Your task to perform on an android device: open app "Google Play Music" (install if not already installed) Image 0: 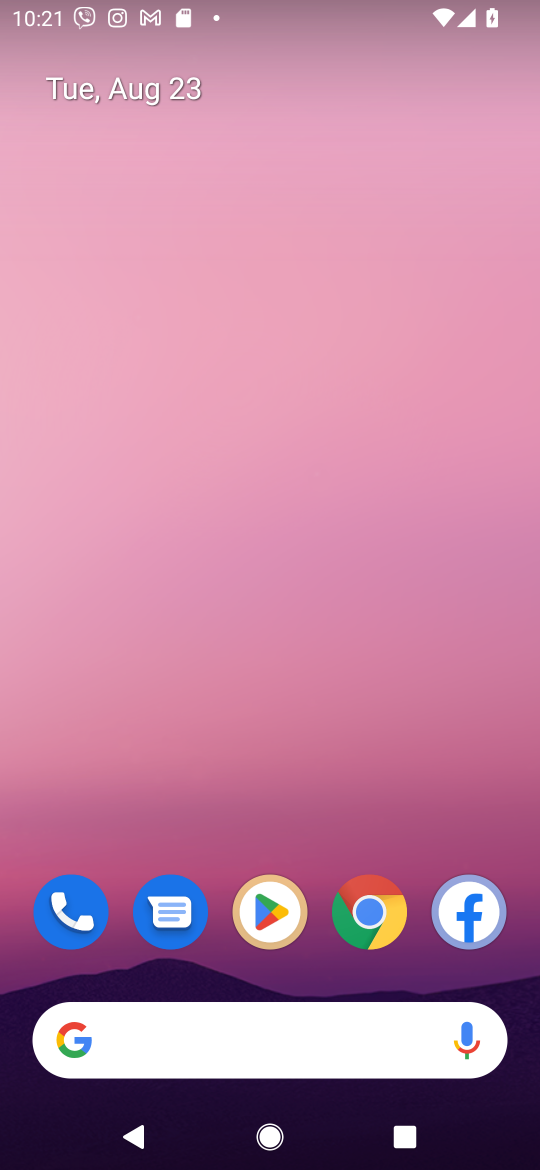
Step 0: click (264, 917)
Your task to perform on an android device: open app "Google Play Music" (install if not already installed) Image 1: 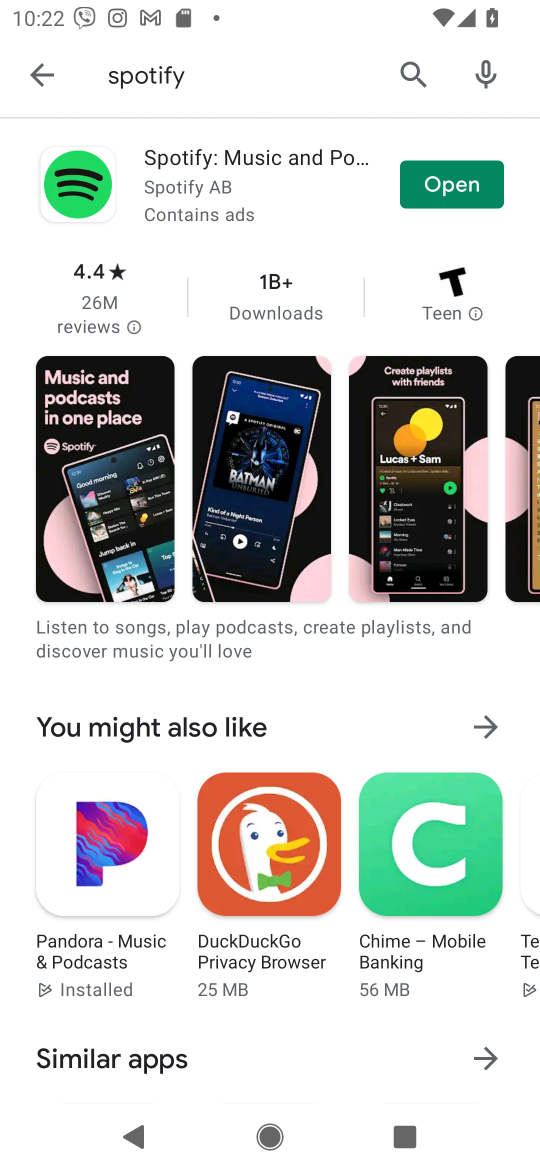
Step 1: click (407, 68)
Your task to perform on an android device: open app "Google Play Music" (install if not already installed) Image 2: 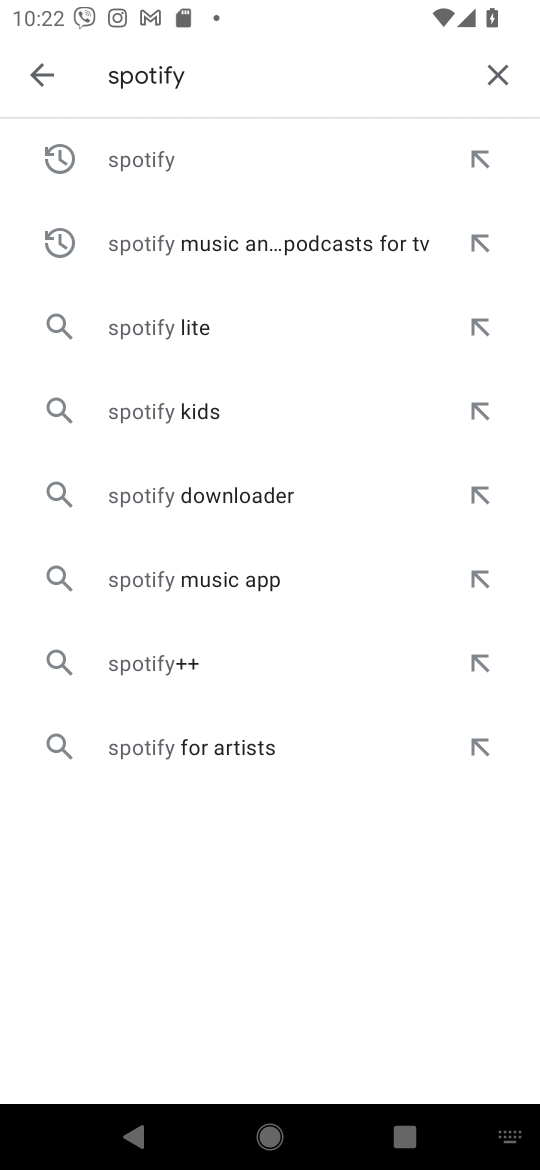
Step 2: click (507, 66)
Your task to perform on an android device: open app "Google Play Music" (install if not already installed) Image 3: 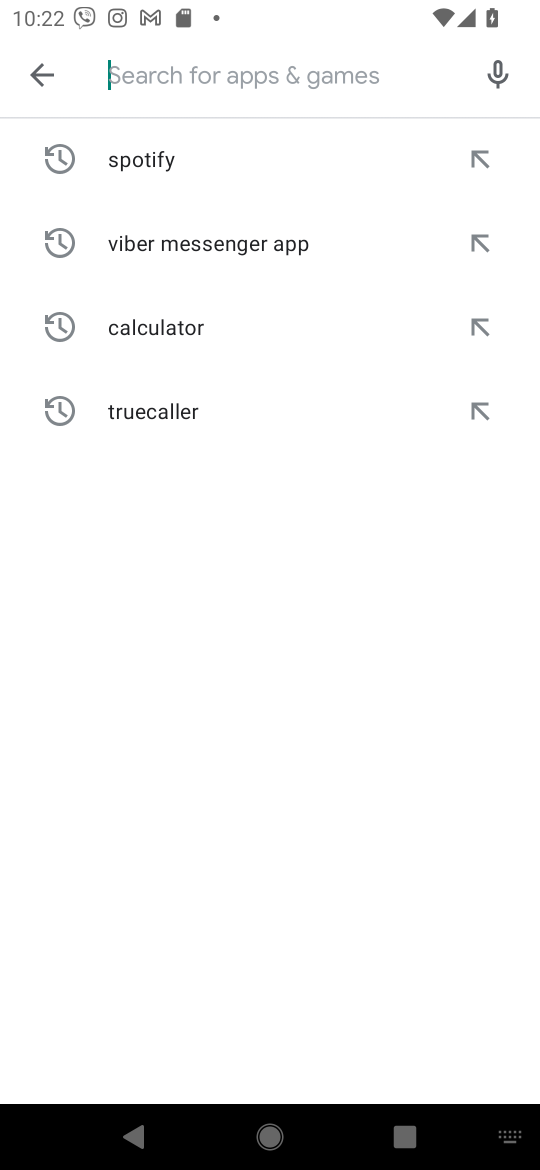
Step 3: type "Google Play Music"
Your task to perform on an android device: open app "Google Play Music" (install if not already installed) Image 4: 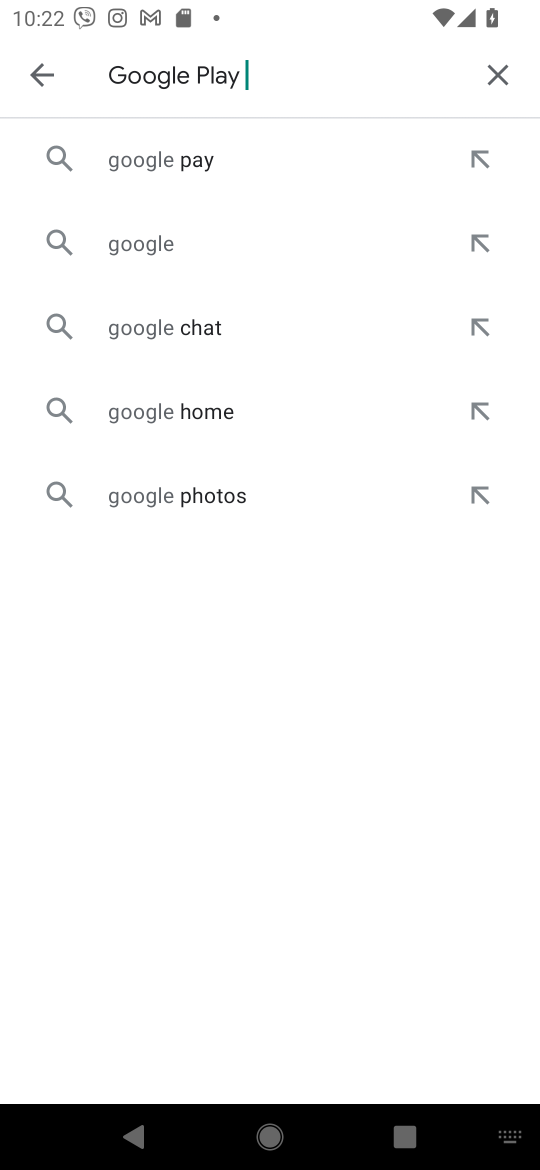
Step 4: type ""
Your task to perform on an android device: open app "Google Play Music" (install if not already installed) Image 5: 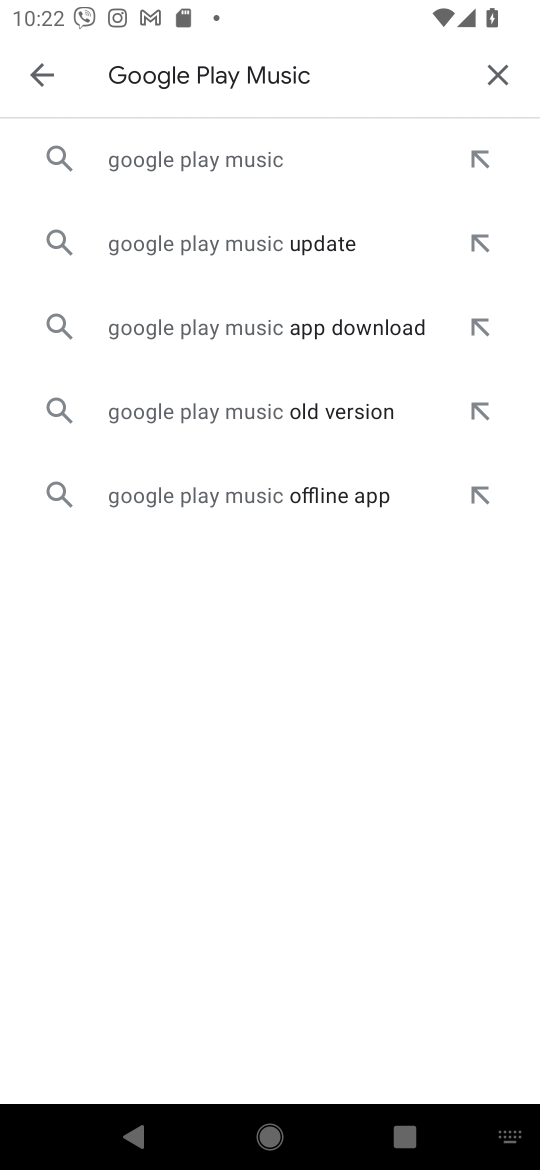
Step 5: click (146, 157)
Your task to perform on an android device: open app "Google Play Music" (install if not already installed) Image 6: 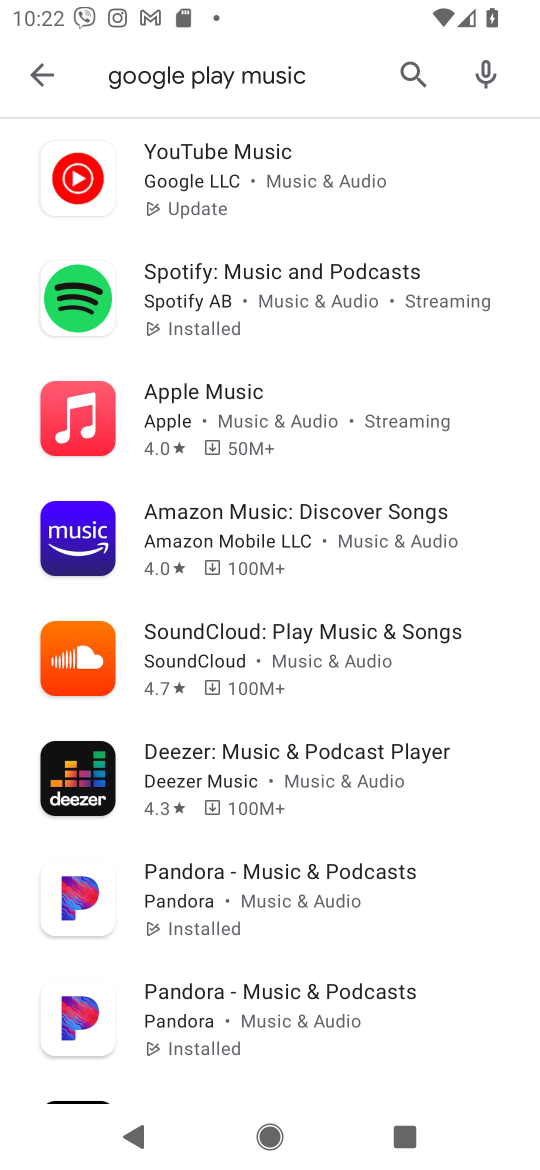
Step 6: task complete